Your task to perform on an android device: Open maps Image 0: 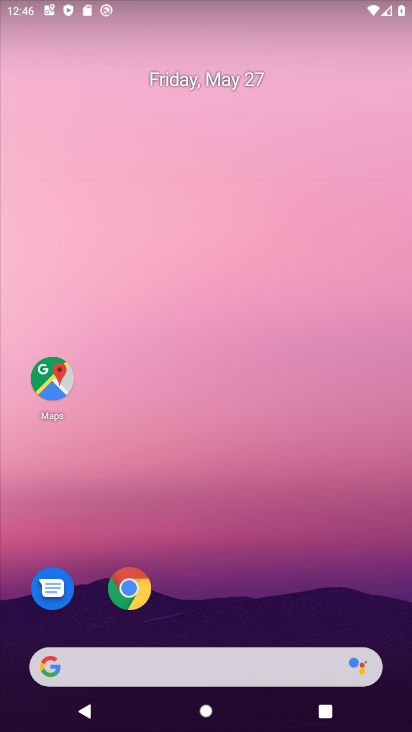
Step 0: drag from (238, 635) to (196, 80)
Your task to perform on an android device: Open maps Image 1: 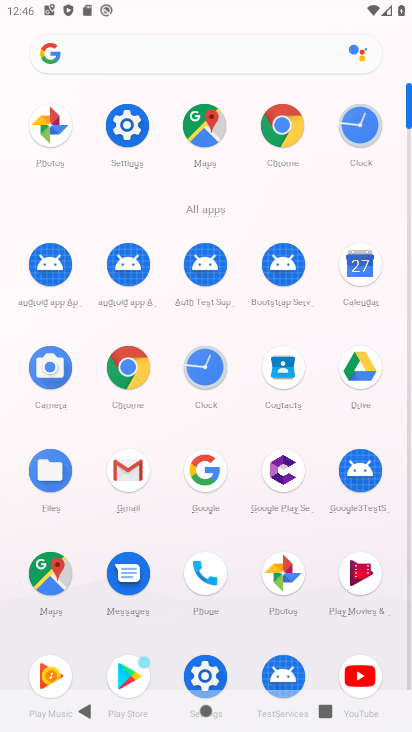
Step 1: click (48, 584)
Your task to perform on an android device: Open maps Image 2: 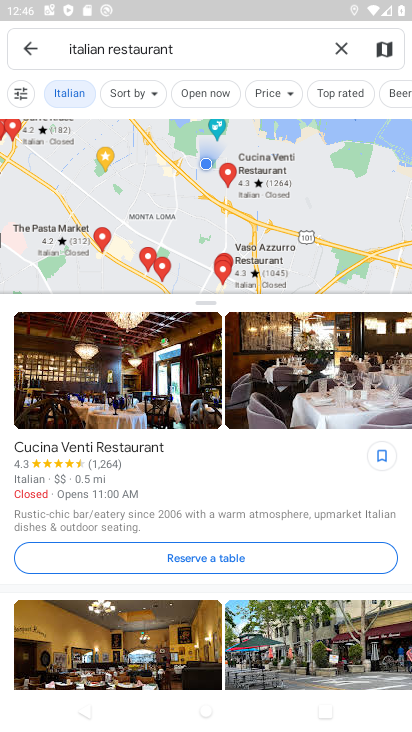
Step 2: task complete